Your task to perform on an android device: turn notification dots on Image 0: 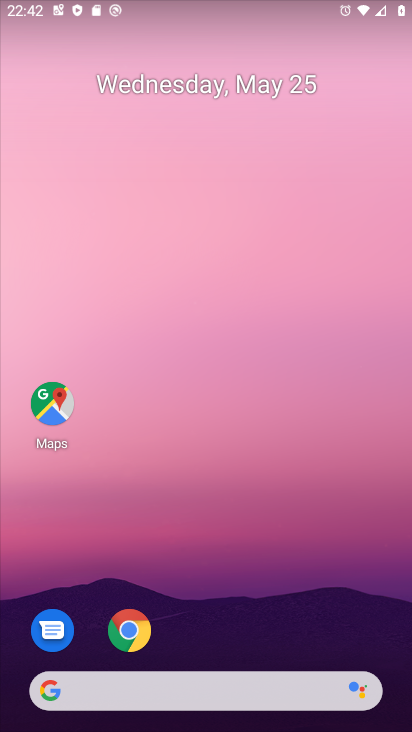
Step 0: drag from (217, 613) to (260, 141)
Your task to perform on an android device: turn notification dots on Image 1: 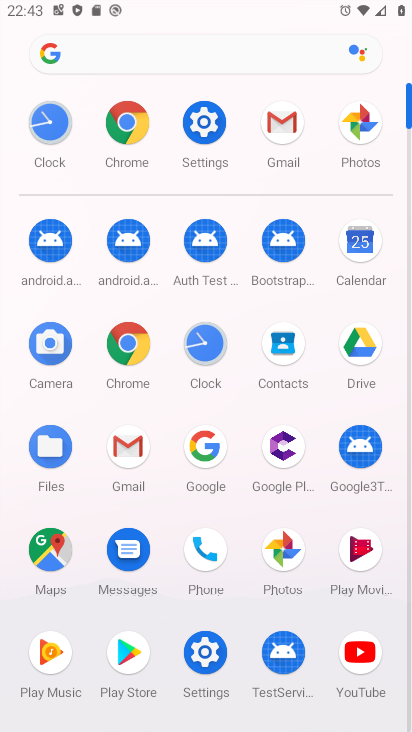
Step 1: click (206, 123)
Your task to perform on an android device: turn notification dots on Image 2: 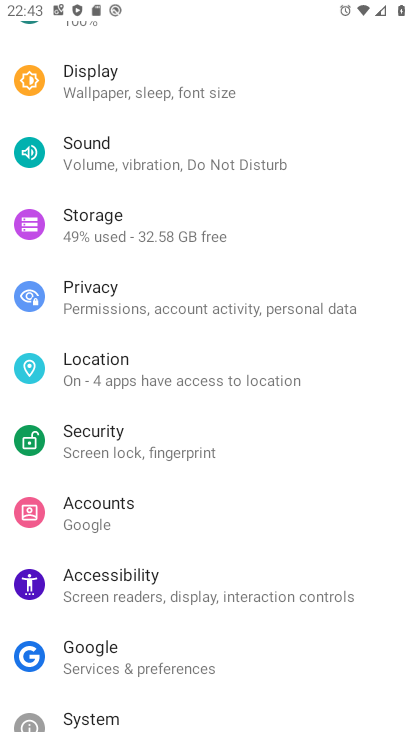
Step 2: drag from (178, 670) to (221, 351)
Your task to perform on an android device: turn notification dots on Image 3: 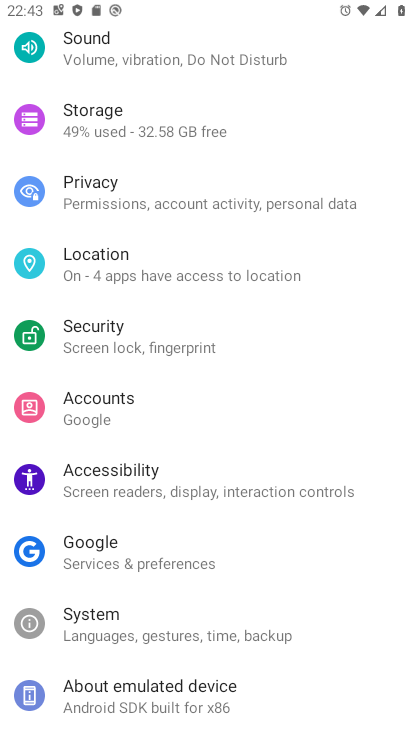
Step 3: drag from (227, 163) to (278, 564)
Your task to perform on an android device: turn notification dots on Image 4: 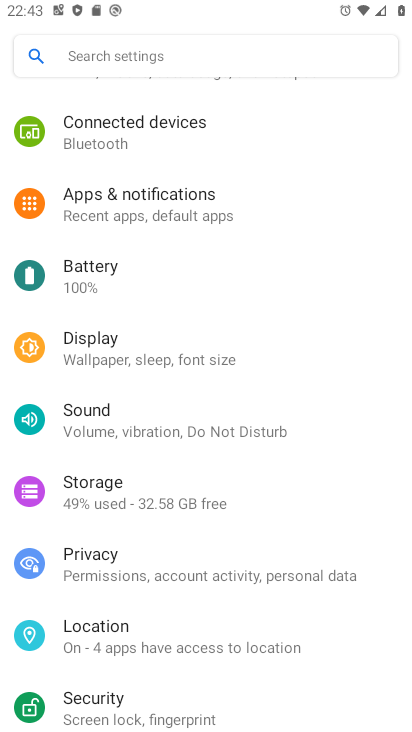
Step 4: click (263, 232)
Your task to perform on an android device: turn notification dots on Image 5: 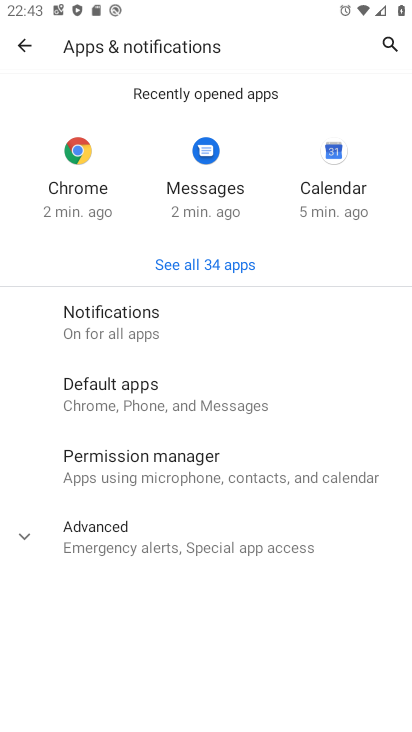
Step 5: click (209, 339)
Your task to perform on an android device: turn notification dots on Image 6: 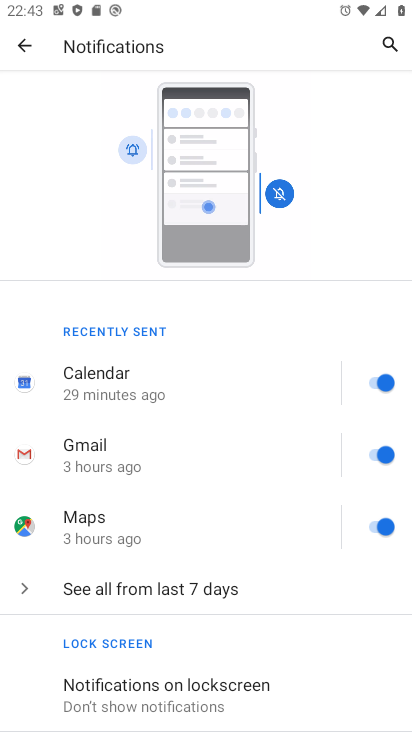
Step 6: drag from (244, 643) to (243, 427)
Your task to perform on an android device: turn notification dots on Image 7: 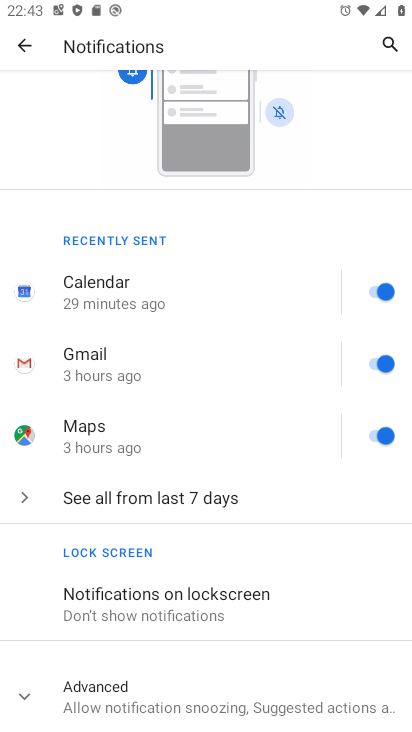
Step 7: click (226, 679)
Your task to perform on an android device: turn notification dots on Image 8: 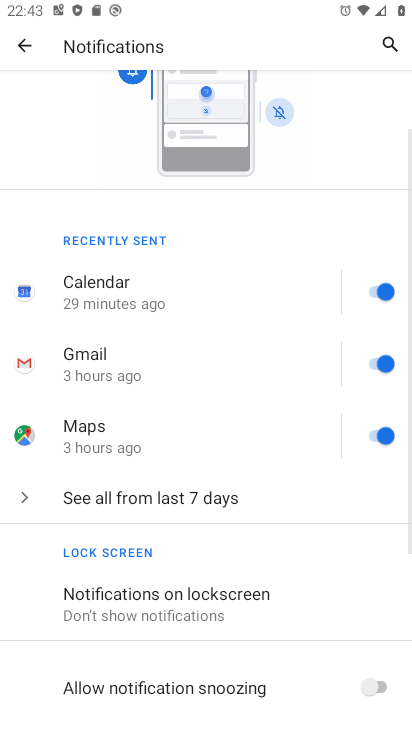
Step 8: drag from (226, 658) to (253, 392)
Your task to perform on an android device: turn notification dots on Image 9: 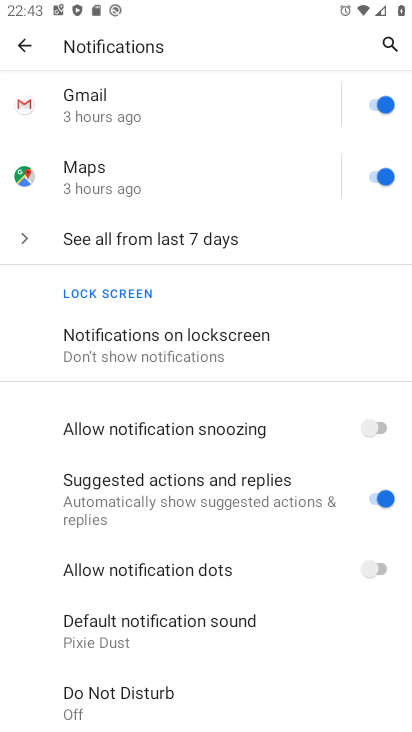
Step 9: click (382, 564)
Your task to perform on an android device: turn notification dots on Image 10: 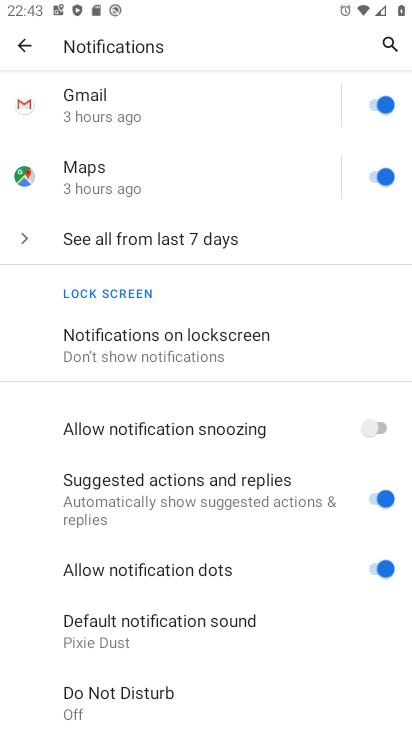
Step 10: task complete